Your task to perform on an android device: open device folders in google photos Image 0: 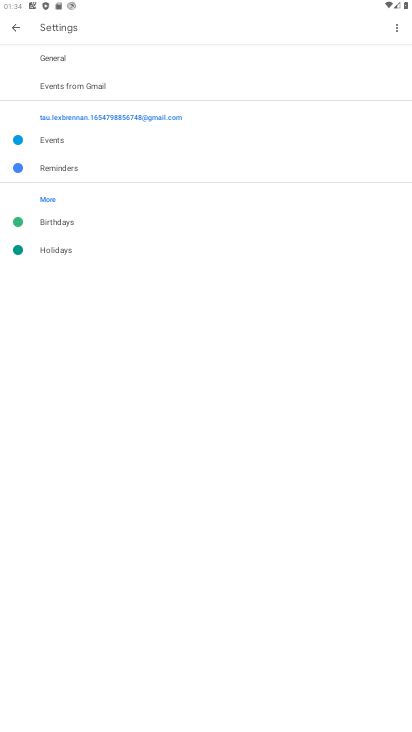
Step 0: press home button
Your task to perform on an android device: open device folders in google photos Image 1: 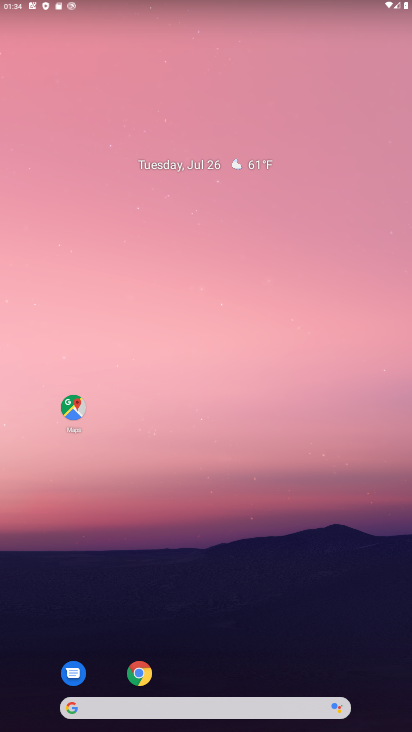
Step 1: drag from (214, 721) to (212, 149)
Your task to perform on an android device: open device folders in google photos Image 2: 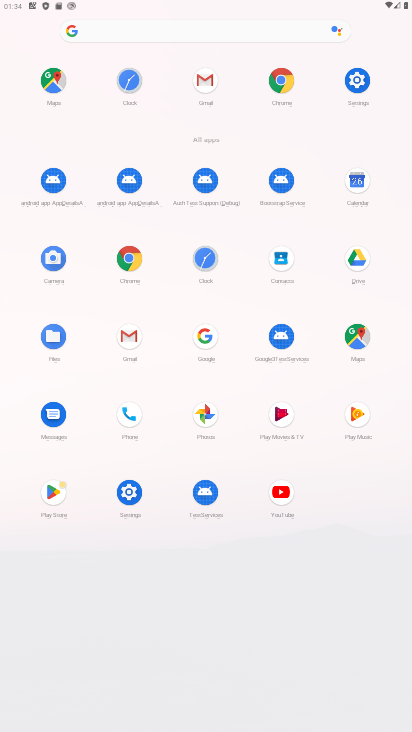
Step 2: click (201, 412)
Your task to perform on an android device: open device folders in google photos Image 3: 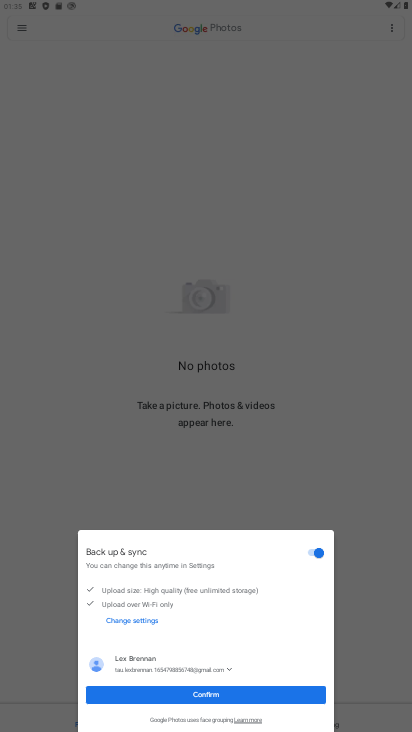
Step 3: click (198, 692)
Your task to perform on an android device: open device folders in google photos Image 4: 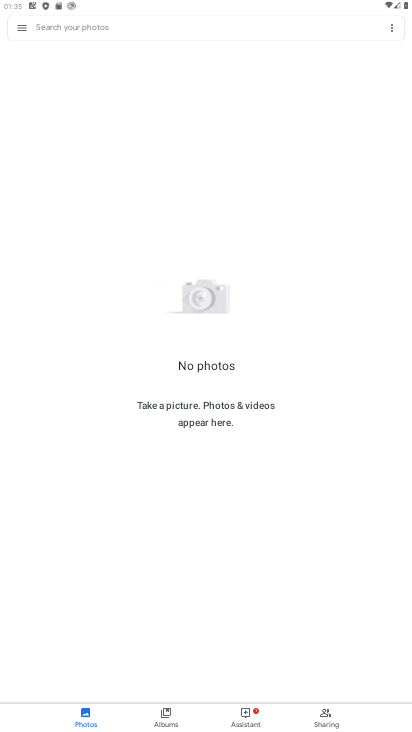
Step 4: click (20, 29)
Your task to perform on an android device: open device folders in google photos Image 5: 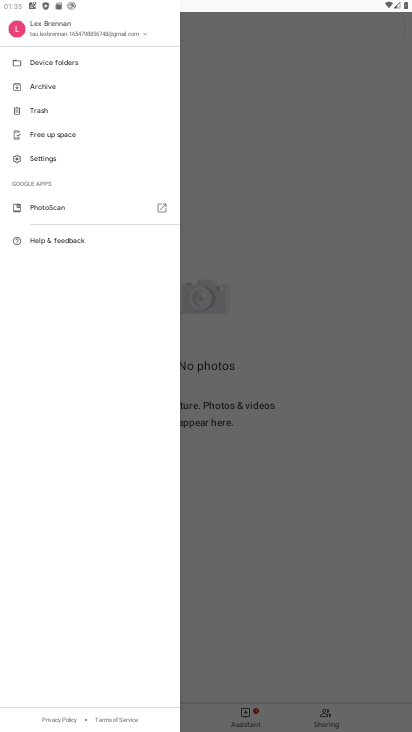
Step 5: click (63, 62)
Your task to perform on an android device: open device folders in google photos Image 6: 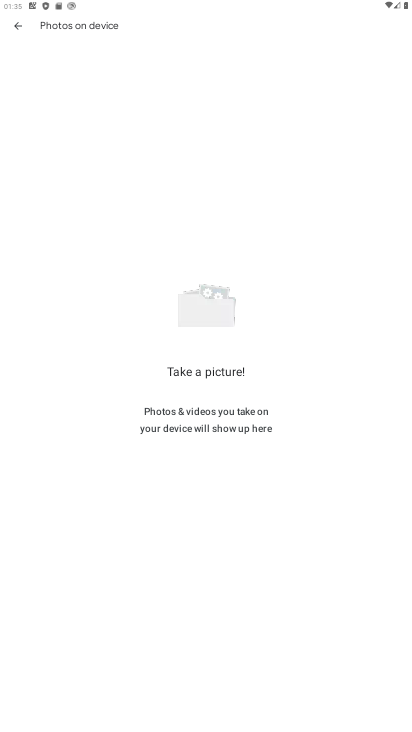
Step 6: task complete